Your task to perform on an android device: open app "Flipkart Online Shopping App" (install if not already installed) and enter user name: "fostered@gmail.com" and password: "negotiated" Image 0: 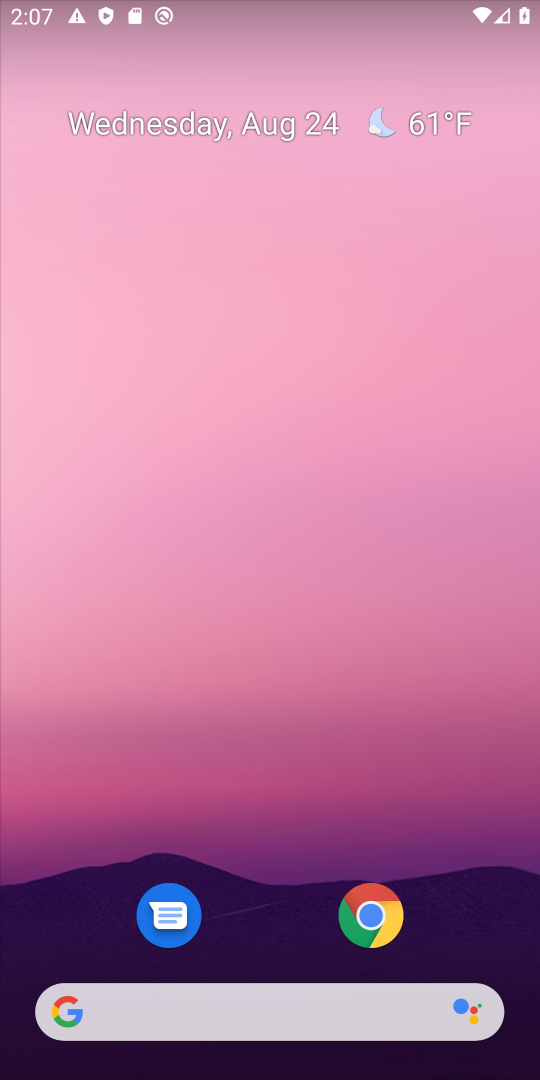
Step 0: drag from (259, 869) to (266, 217)
Your task to perform on an android device: open app "Flipkart Online Shopping App" (install if not already installed) and enter user name: "fostered@gmail.com" and password: "negotiated" Image 1: 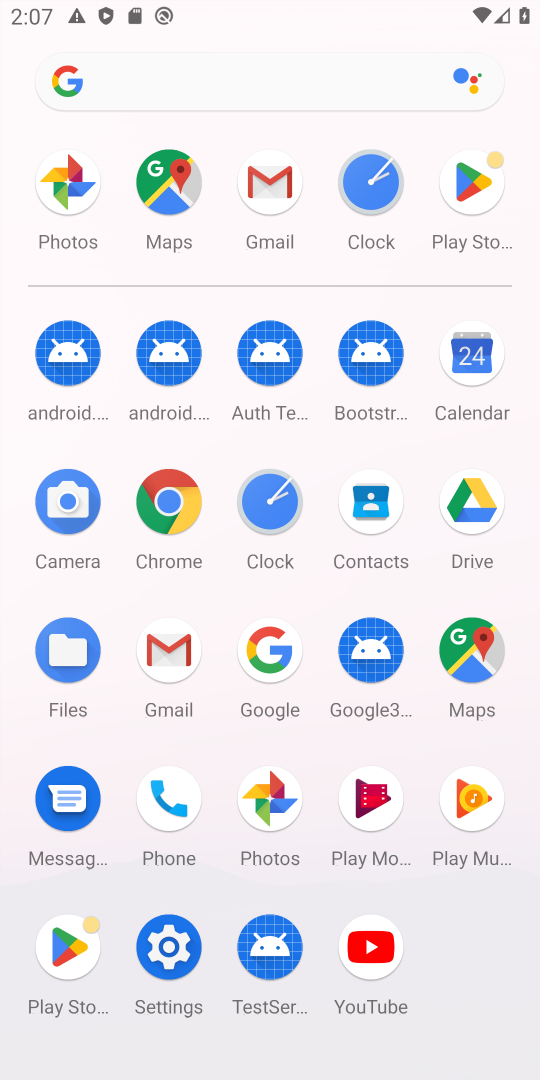
Step 1: click (482, 180)
Your task to perform on an android device: open app "Flipkart Online Shopping App" (install if not already installed) and enter user name: "fostered@gmail.com" and password: "negotiated" Image 2: 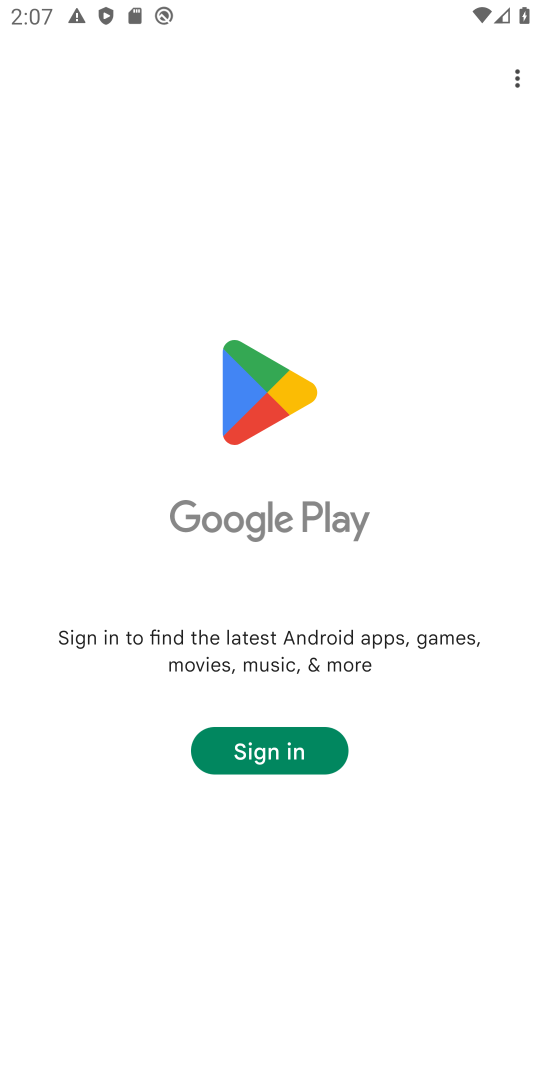
Step 2: task complete